Your task to perform on an android device: turn off smart reply in the gmail app Image 0: 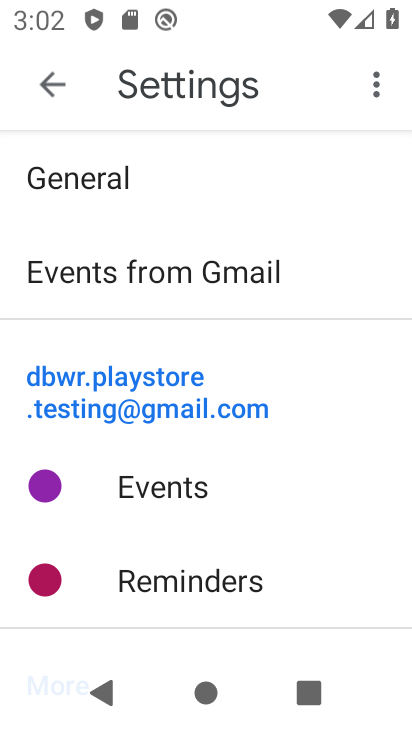
Step 0: press home button
Your task to perform on an android device: turn off smart reply in the gmail app Image 1: 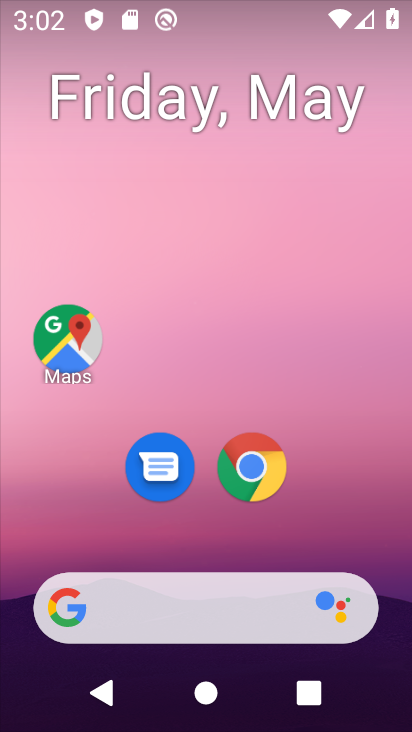
Step 1: drag from (345, 484) to (282, 83)
Your task to perform on an android device: turn off smart reply in the gmail app Image 2: 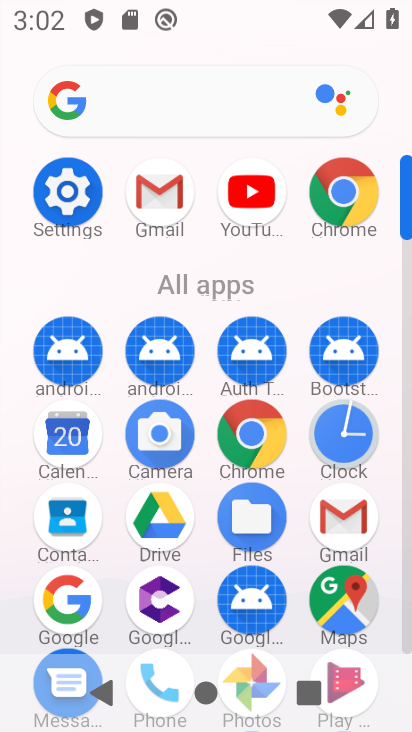
Step 2: click (166, 184)
Your task to perform on an android device: turn off smart reply in the gmail app Image 3: 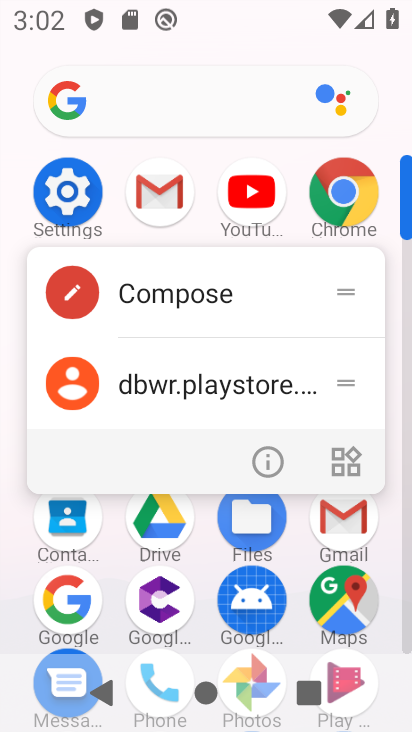
Step 3: click (166, 184)
Your task to perform on an android device: turn off smart reply in the gmail app Image 4: 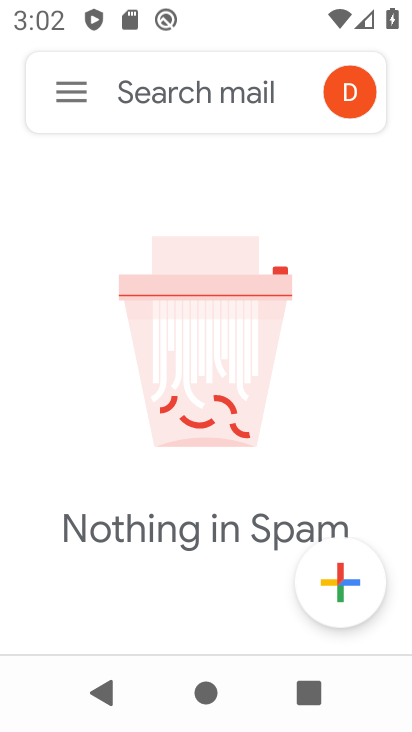
Step 4: click (48, 72)
Your task to perform on an android device: turn off smart reply in the gmail app Image 5: 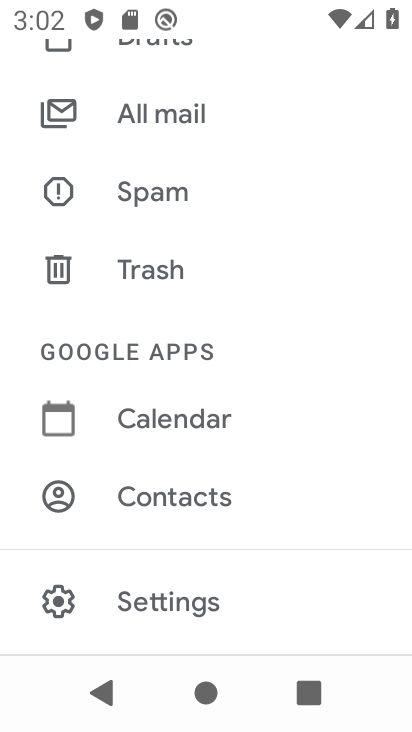
Step 5: drag from (190, 578) to (165, 129)
Your task to perform on an android device: turn off smart reply in the gmail app Image 6: 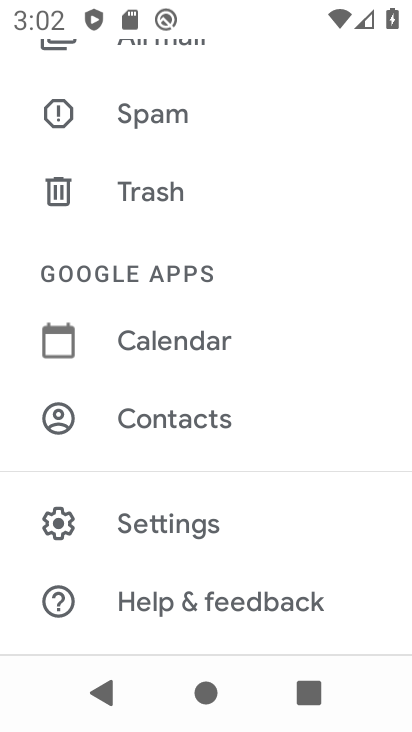
Step 6: drag from (206, 246) to (198, 648)
Your task to perform on an android device: turn off smart reply in the gmail app Image 7: 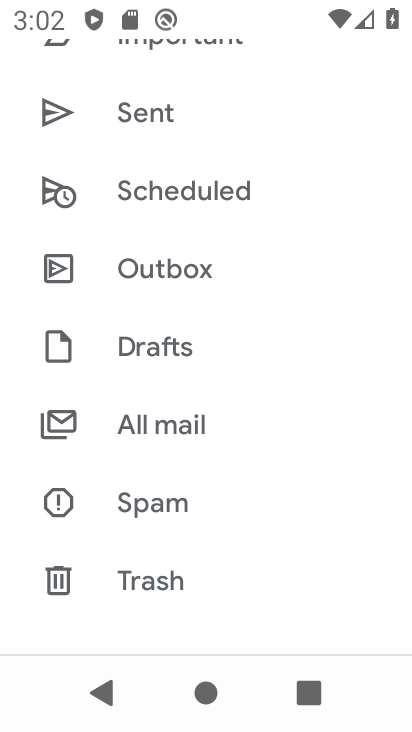
Step 7: drag from (212, 164) to (247, 578)
Your task to perform on an android device: turn off smart reply in the gmail app Image 8: 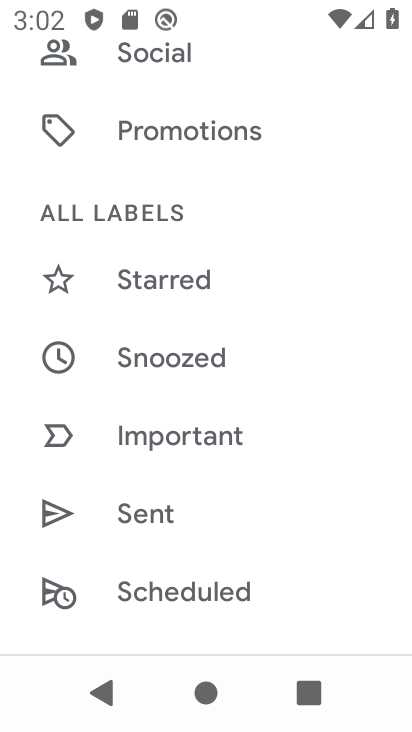
Step 8: drag from (196, 173) to (250, 554)
Your task to perform on an android device: turn off smart reply in the gmail app Image 9: 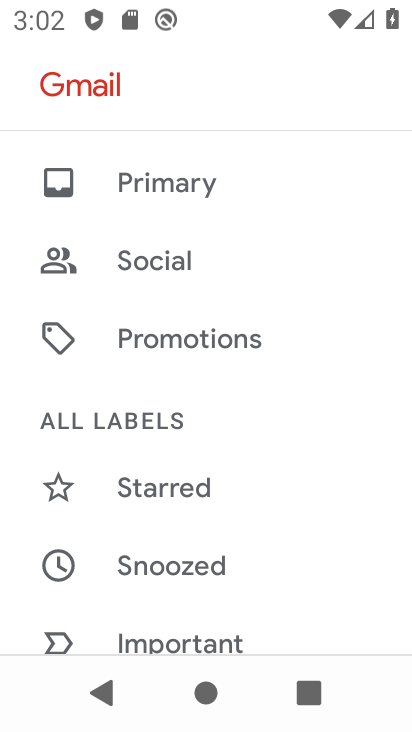
Step 9: drag from (249, 623) to (222, 122)
Your task to perform on an android device: turn off smart reply in the gmail app Image 10: 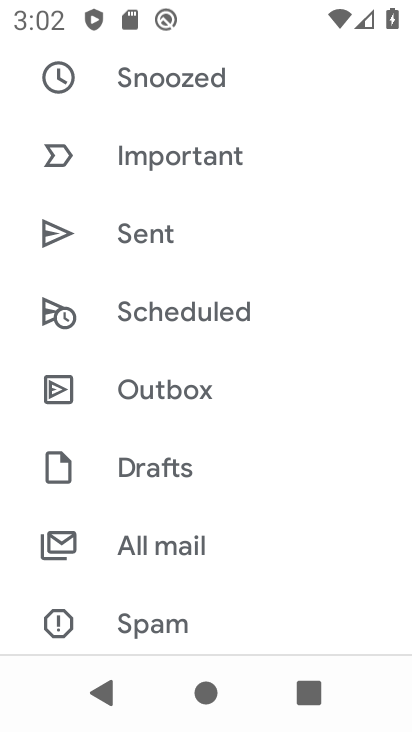
Step 10: drag from (184, 570) to (150, 107)
Your task to perform on an android device: turn off smart reply in the gmail app Image 11: 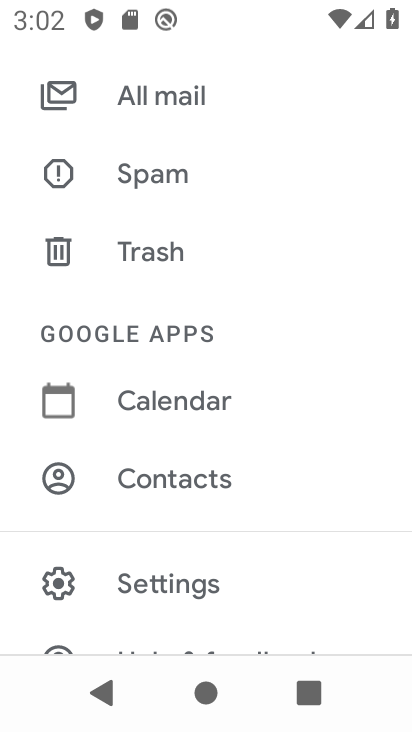
Step 11: drag from (194, 561) to (172, 139)
Your task to perform on an android device: turn off smart reply in the gmail app Image 12: 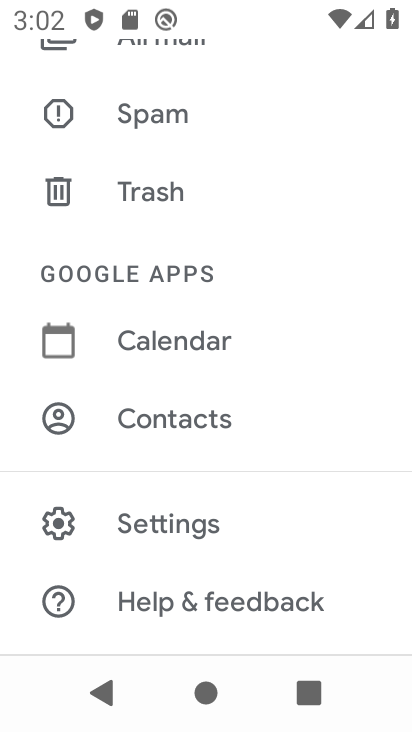
Step 12: click (147, 518)
Your task to perform on an android device: turn off smart reply in the gmail app Image 13: 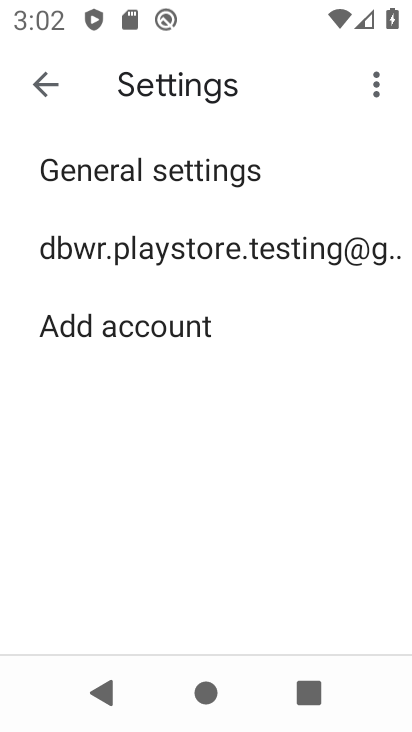
Step 13: click (118, 265)
Your task to perform on an android device: turn off smart reply in the gmail app Image 14: 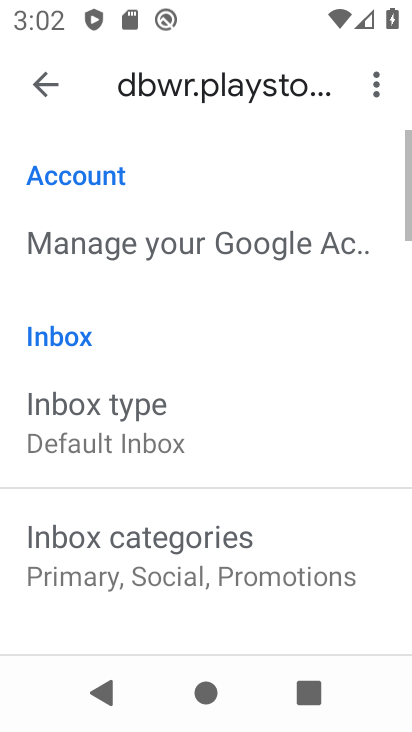
Step 14: drag from (231, 556) to (157, 141)
Your task to perform on an android device: turn off smart reply in the gmail app Image 15: 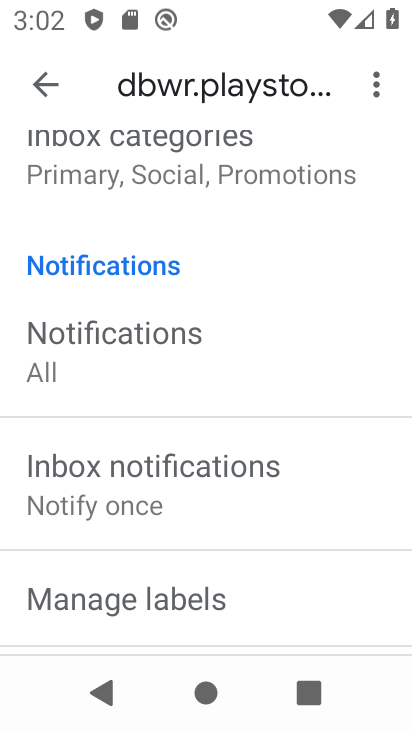
Step 15: drag from (163, 585) to (128, 172)
Your task to perform on an android device: turn off smart reply in the gmail app Image 16: 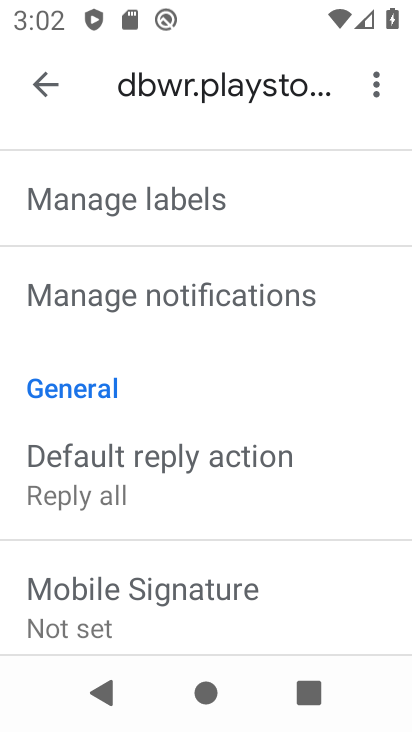
Step 16: drag from (271, 618) to (238, 158)
Your task to perform on an android device: turn off smart reply in the gmail app Image 17: 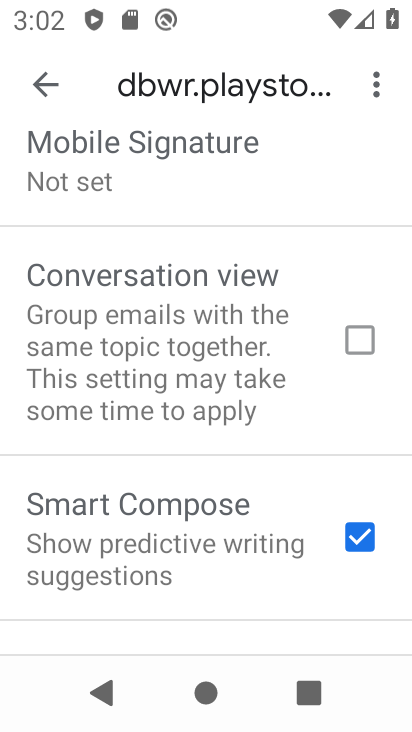
Step 17: drag from (212, 519) to (196, 136)
Your task to perform on an android device: turn off smart reply in the gmail app Image 18: 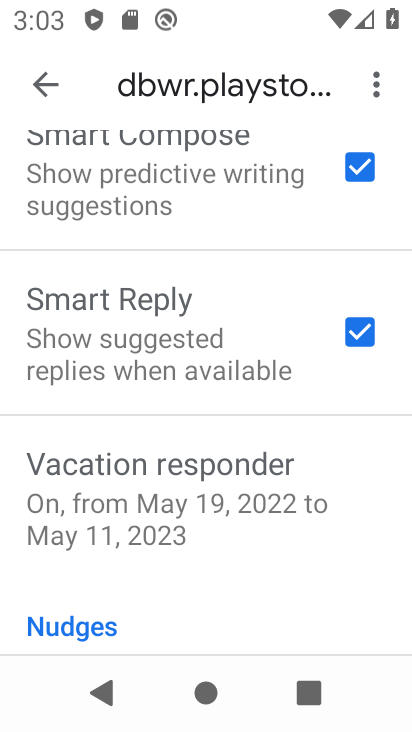
Step 18: click (371, 331)
Your task to perform on an android device: turn off smart reply in the gmail app Image 19: 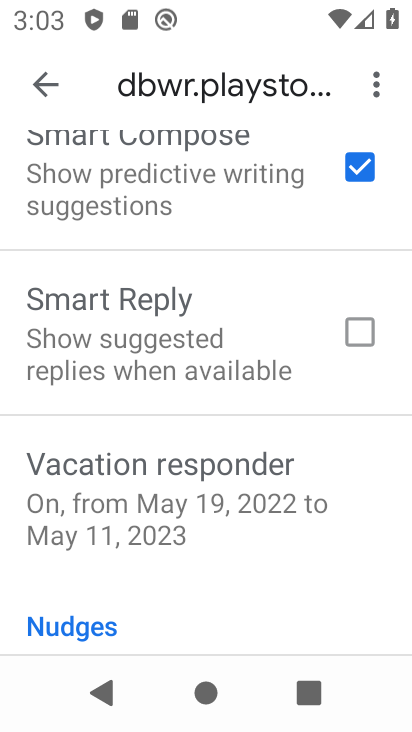
Step 19: task complete